Your task to perform on an android device: all mails in gmail Image 0: 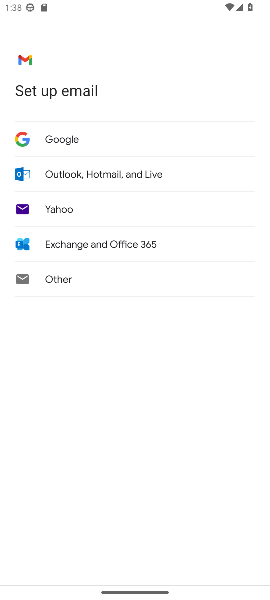
Step 0: press home button
Your task to perform on an android device: all mails in gmail Image 1: 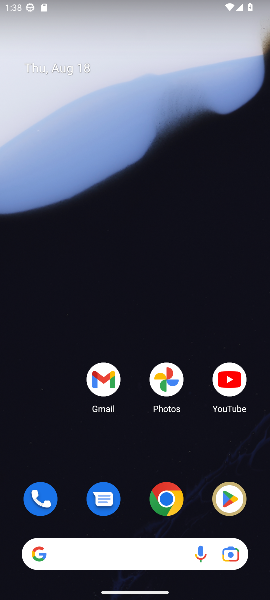
Step 1: click (108, 379)
Your task to perform on an android device: all mails in gmail Image 2: 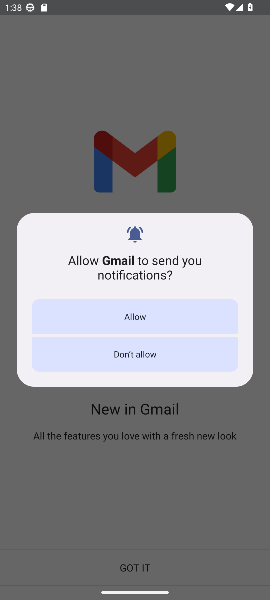
Step 2: click (129, 317)
Your task to perform on an android device: all mails in gmail Image 3: 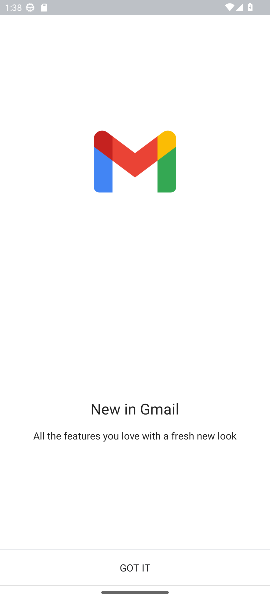
Step 3: click (131, 565)
Your task to perform on an android device: all mails in gmail Image 4: 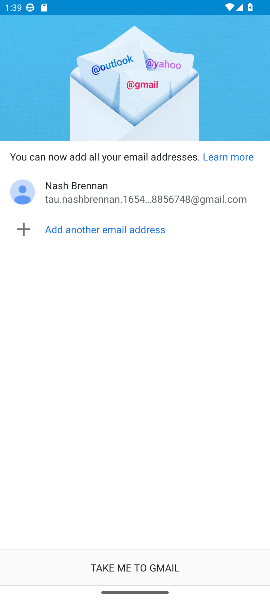
Step 4: click (131, 562)
Your task to perform on an android device: all mails in gmail Image 5: 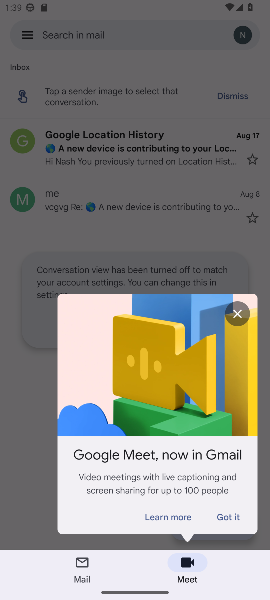
Step 5: click (238, 311)
Your task to perform on an android device: all mails in gmail Image 6: 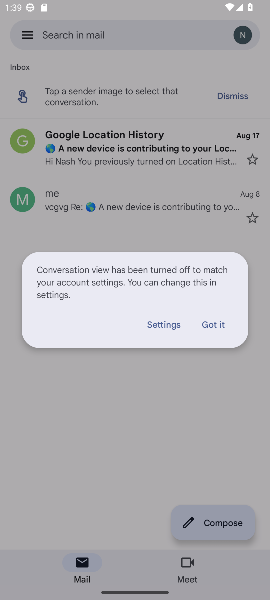
Step 6: click (213, 327)
Your task to perform on an android device: all mails in gmail Image 7: 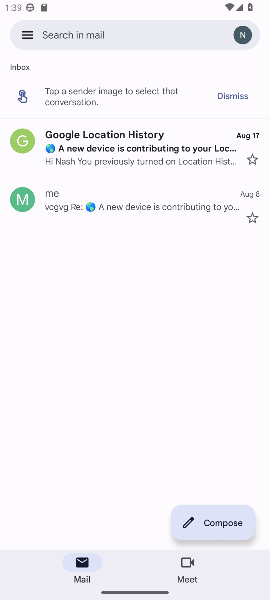
Step 7: click (21, 33)
Your task to perform on an android device: all mails in gmail Image 8: 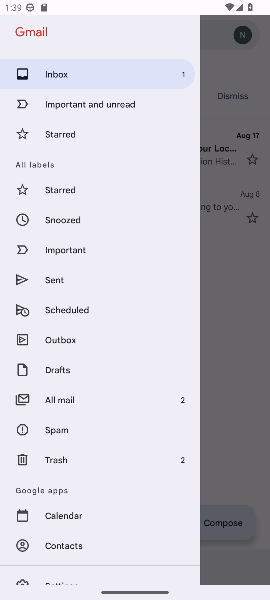
Step 8: click (59, 399)
Your task to perform on an android device: all mails in gmail Image 9: 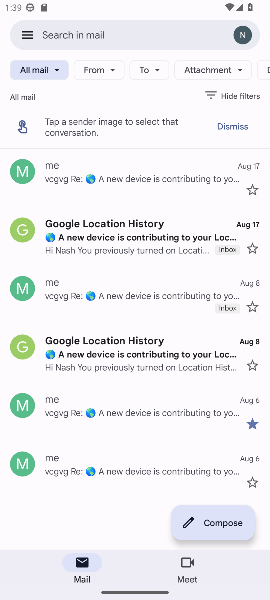
Step 9: task complete